Your task to perform on an android device: change the clock display to digital Image 0: 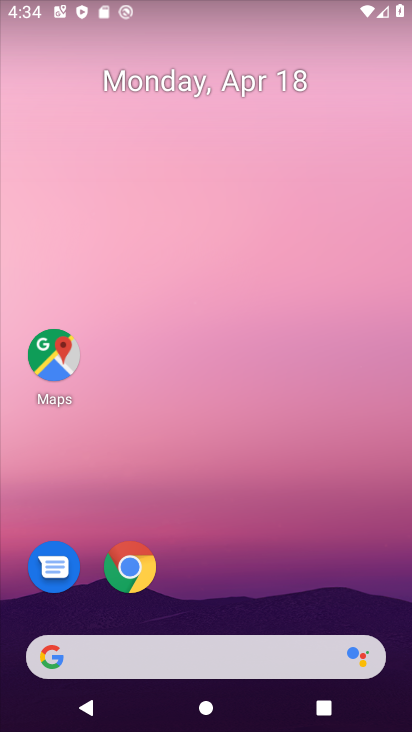
Step 0: drag from (199, 635) to (295, 199)
Your task to perform on an android device: change the clock display to digital Image 1: 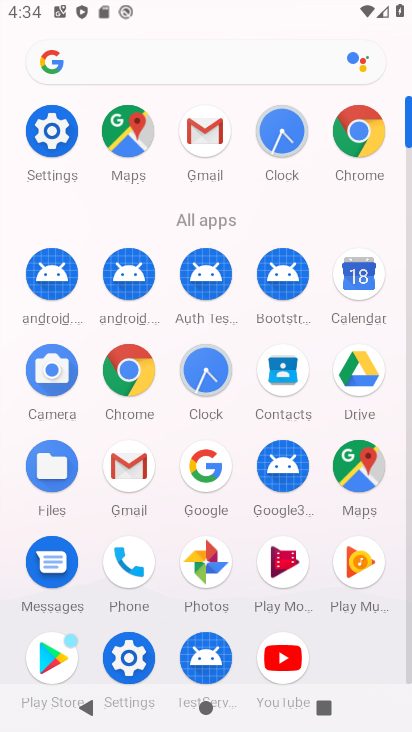
Step 1: click (279, 123)
Your task to perform on an android device: change the clock display to digital Image 2: 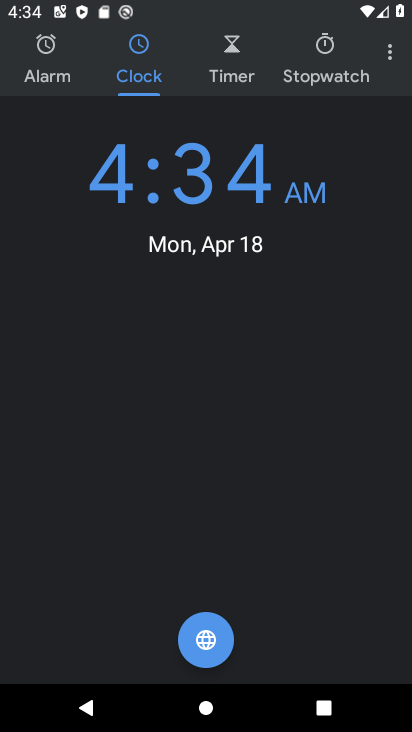
Step 2: click (390, 40)
Your task to perform on an android device: change the clock display to digital Image 3: 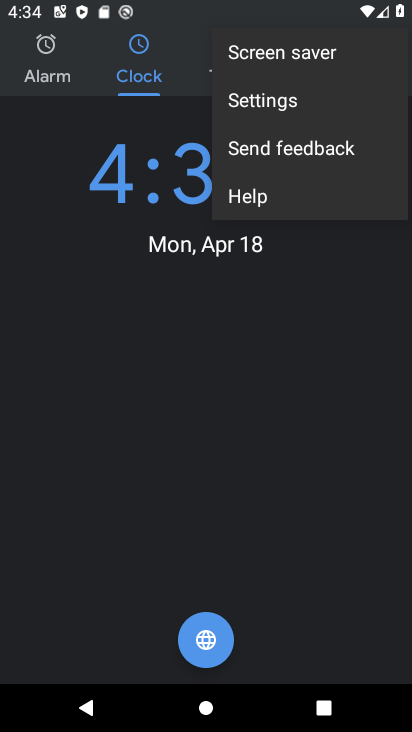
Step 3: click (281, 91)
Your task to perform on an android device: change the clock display to digital Image 4: 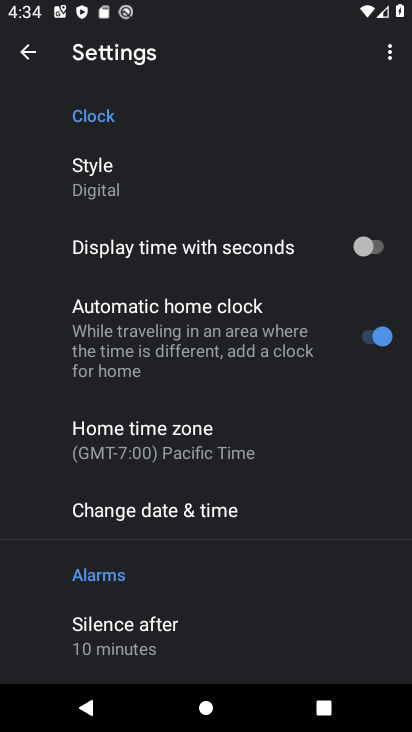
Step 4: task complete